Your task to perform on an android device: Open the phone app and click the voicemail tab. Image 0: 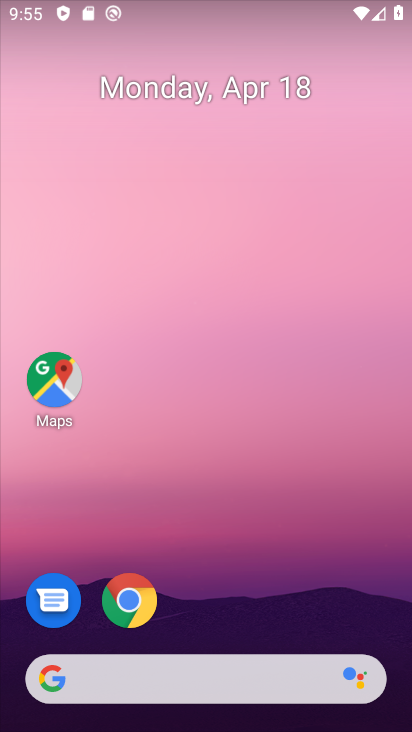
Step 0: drag from (215, 637) to (307, 0)
Your task to perform on an android device: Open the phone app and click the voicemail tab. Image 1: 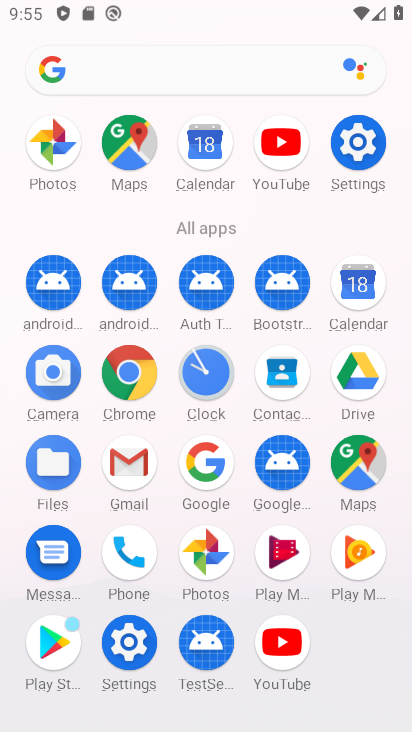
Step 1: click (123, 550)
Your task to perform on an android device: Open the phone app and click the voicemail tab. Image 2: 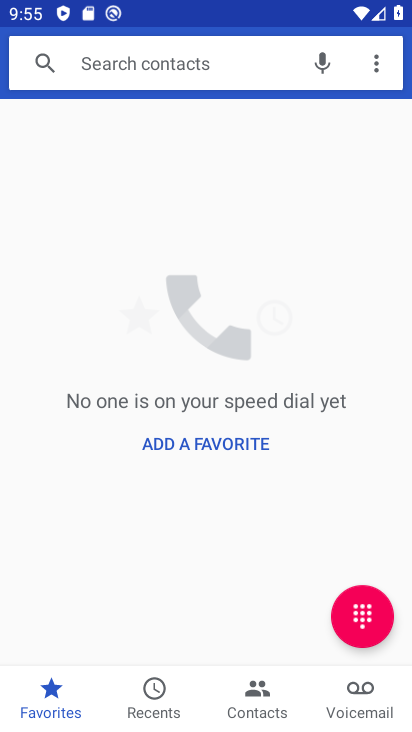
Step 2: click (362, 680)
Your task to perform on an android device: Open the phone app and click the voicemail tab. Image 3: 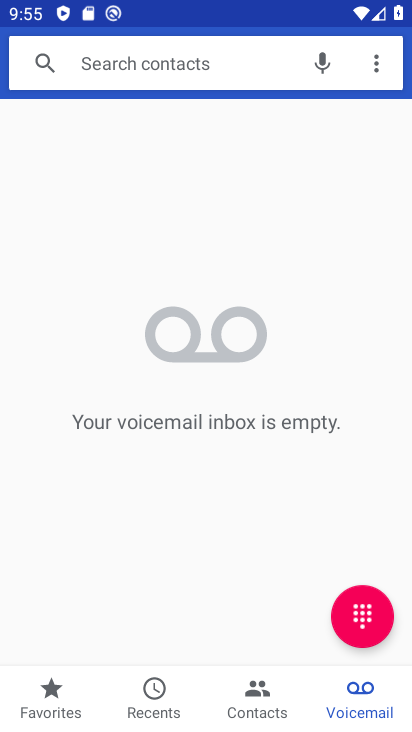
Step 3: task complete